Your task to perform on an android device: Play the last video I watched on Youtube Image 0: 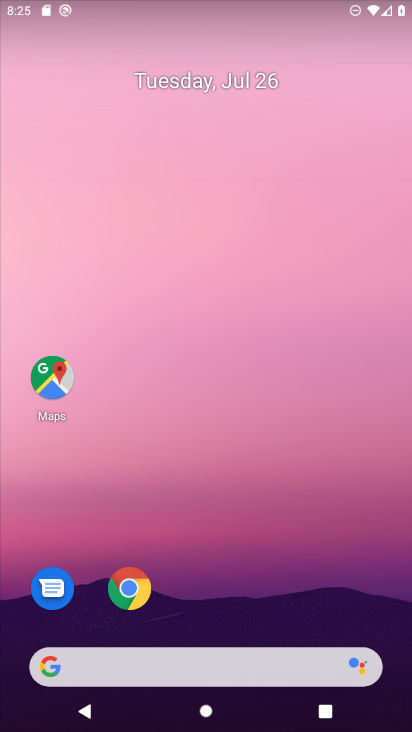
Step 0: drag from (265, 627) to (254, 2)
Your task to perform on an android device: Play the last video I watched on Youtube Image 1: 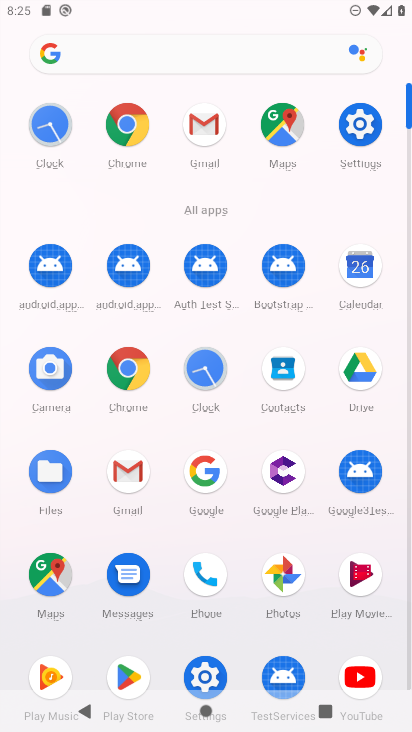
Step 1: click (352, 672)
Your task to perform on an android device: Play the last video I watched on Youtube Image 2: 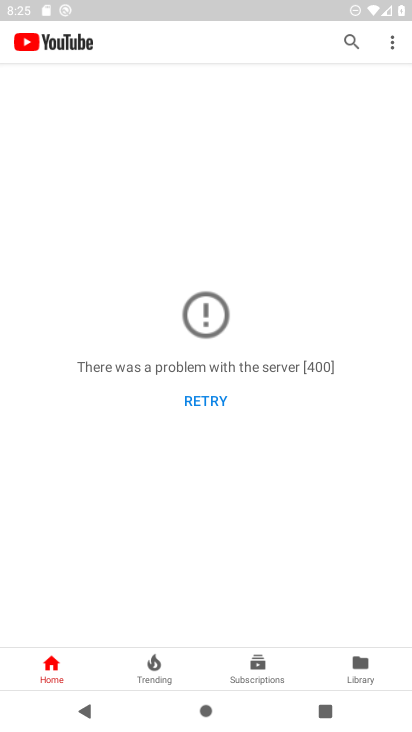
Step 2: click (353, 668)
Your task to perform on an android device: Play the last video I watched on Youtube Image 3: 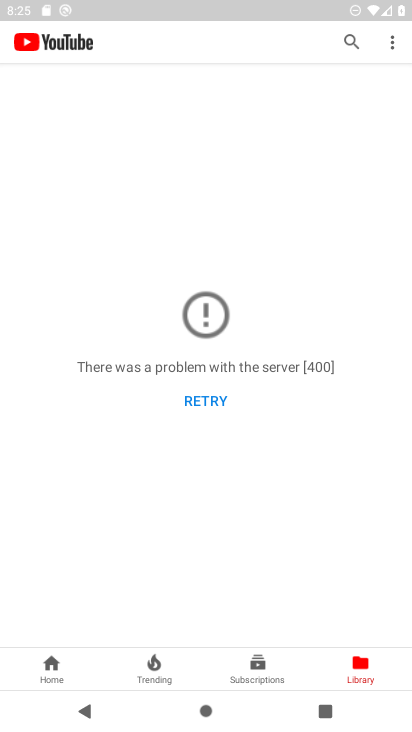
Step 3: task complete